Your task to perform on an android device: find photos in the google photos app Image 0: 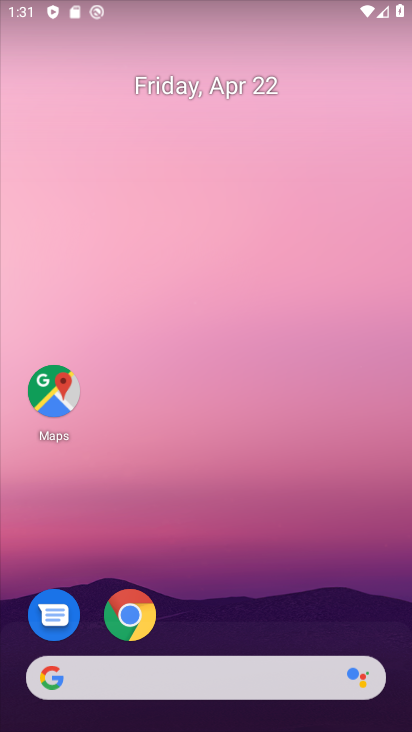
Step 0: drag from (186, 600) to (336, 69)
Your task to perform on an android device: find photos in the google photos app Image 1: 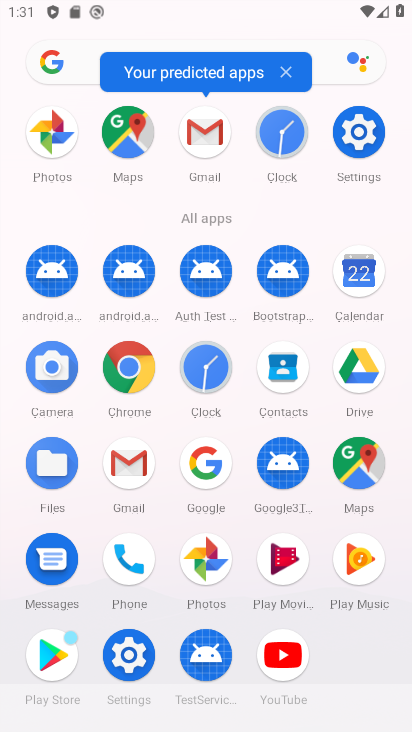
Step 1: click (206, 570)
Your task to perform on an android device: find photos in the google photos app Image 2: 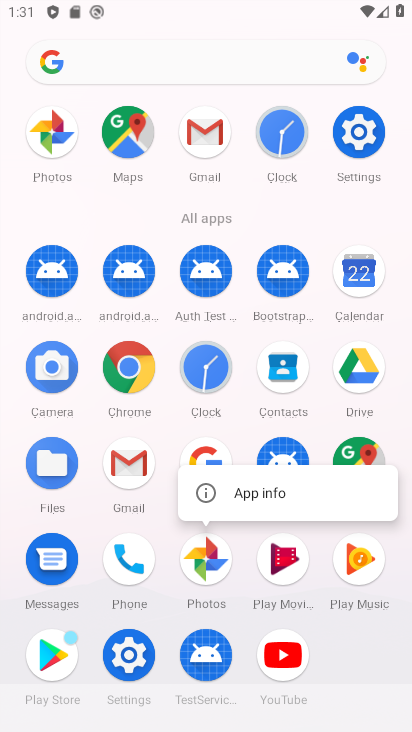
Step 2: click (199, 569)
Your task to perform on an android device: find photos in the google photos app Image 3: 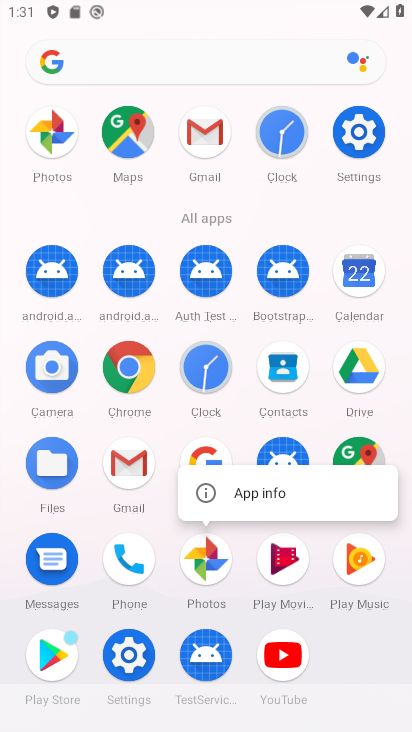
Step 3: click (218, 571)
Your task to perform on an android device: find photos in the google photos app Image 4: 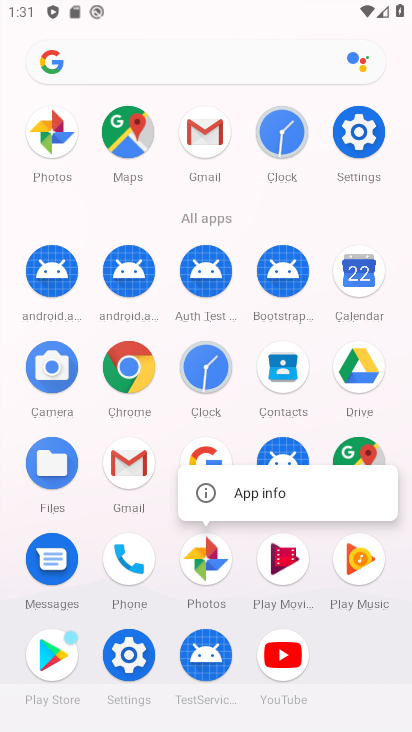
Step 4: click (218, 571)
Your task to perform on an android device: find photos in the google photos app Image 5: 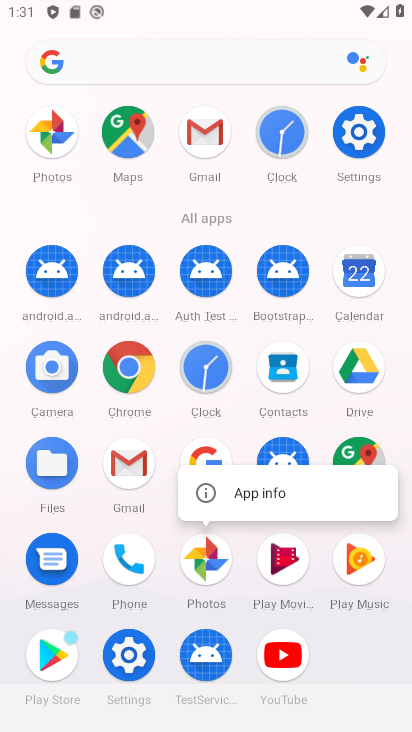
Step 5: click (189, 560)
Your task to perform on an android device: find photos in the google photos app Image 6: 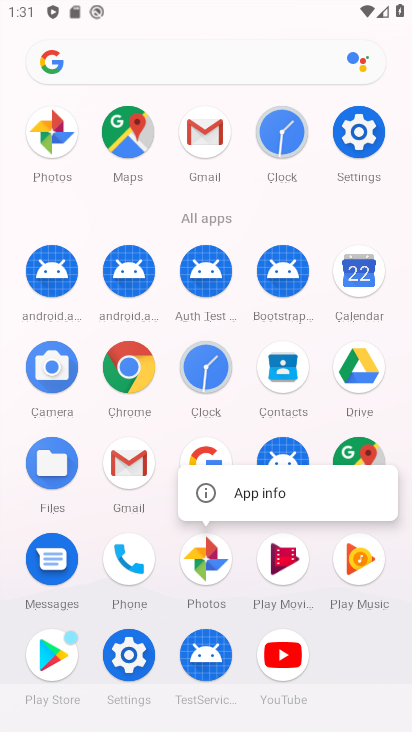
Step 6: click (208, 585)
Your task to perform on an android device: find photos in the google photos app Image 7: 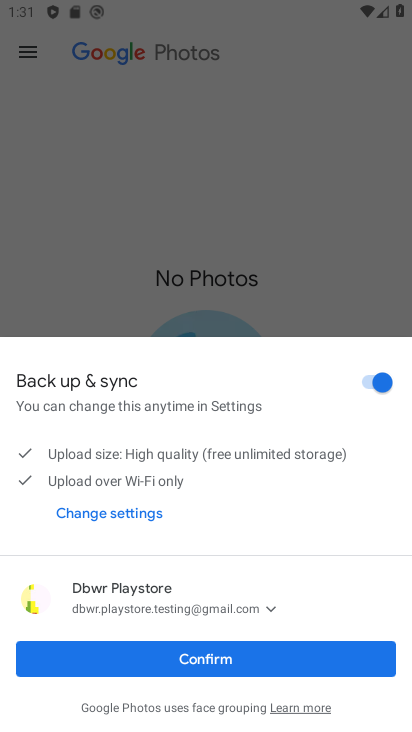
Step 7: click (209, 670)
Your task to perform on an android device: find photos in the google photos app Image 8: 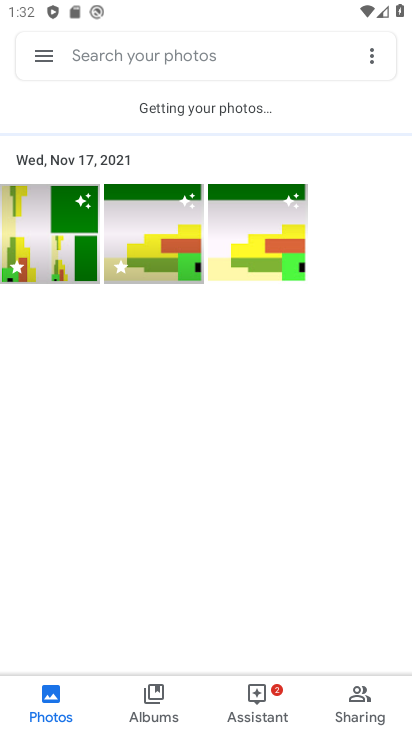
Step 8: task complete